Your task to perform on an android device: Go to eBay Image 0: 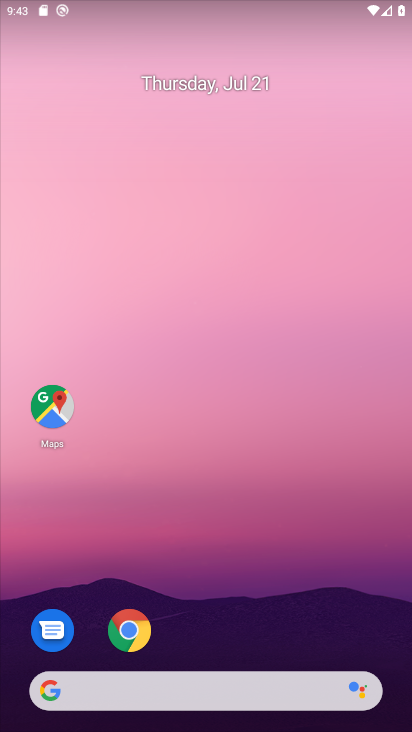
Step 0: click (129, 634)
Your task to perform on an android device: Go to eBay Image 1: 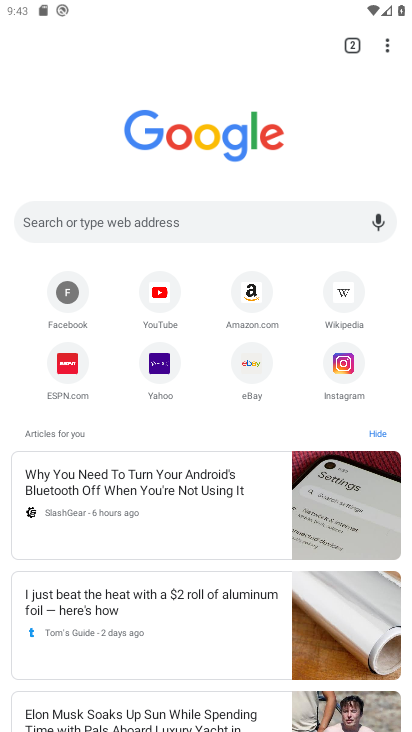
Step 1: click (252, 359)
Your task to perform on an android device: Go to eBay Image 2: 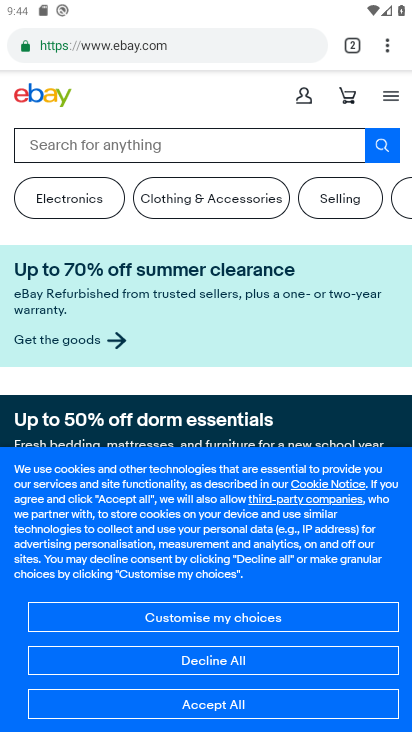
Step 2: task complete